Your task to perform on an android device: Open Google Chrome Image 0: 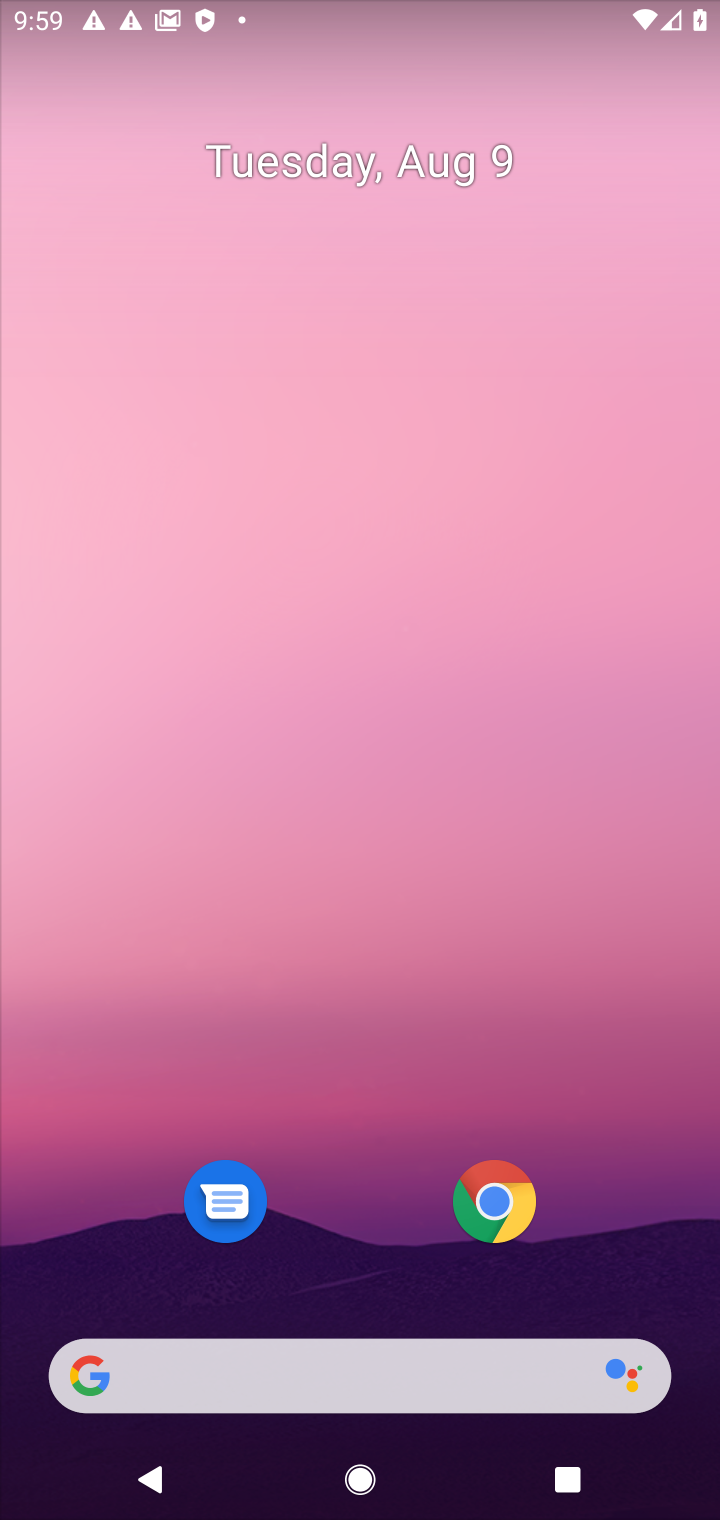
Step 0: click (508, 1219)
Your task to perform on an android device: Open Google Chrome Image 1: 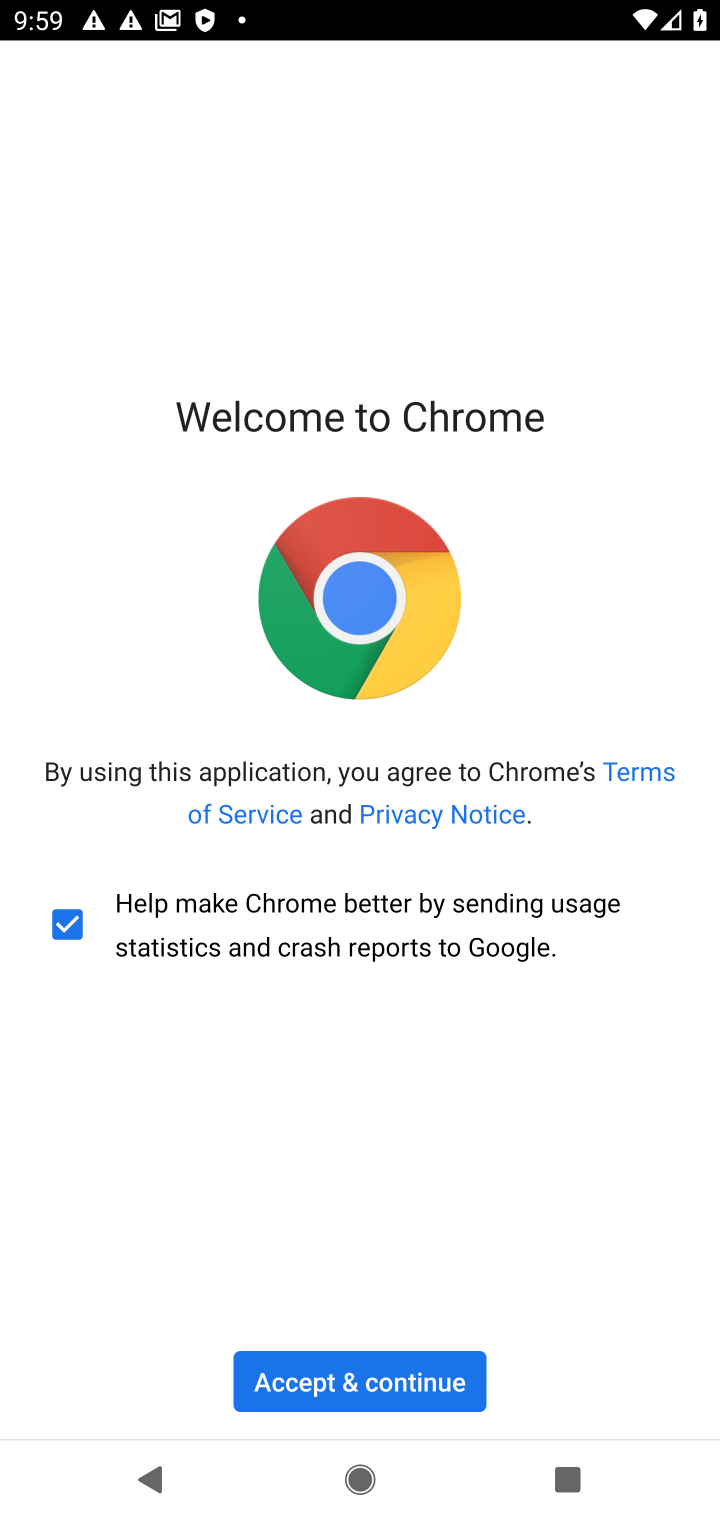
Step 1: click (385, 1381)
Your task to perform on an android device: Open Google Chrome Image 2: 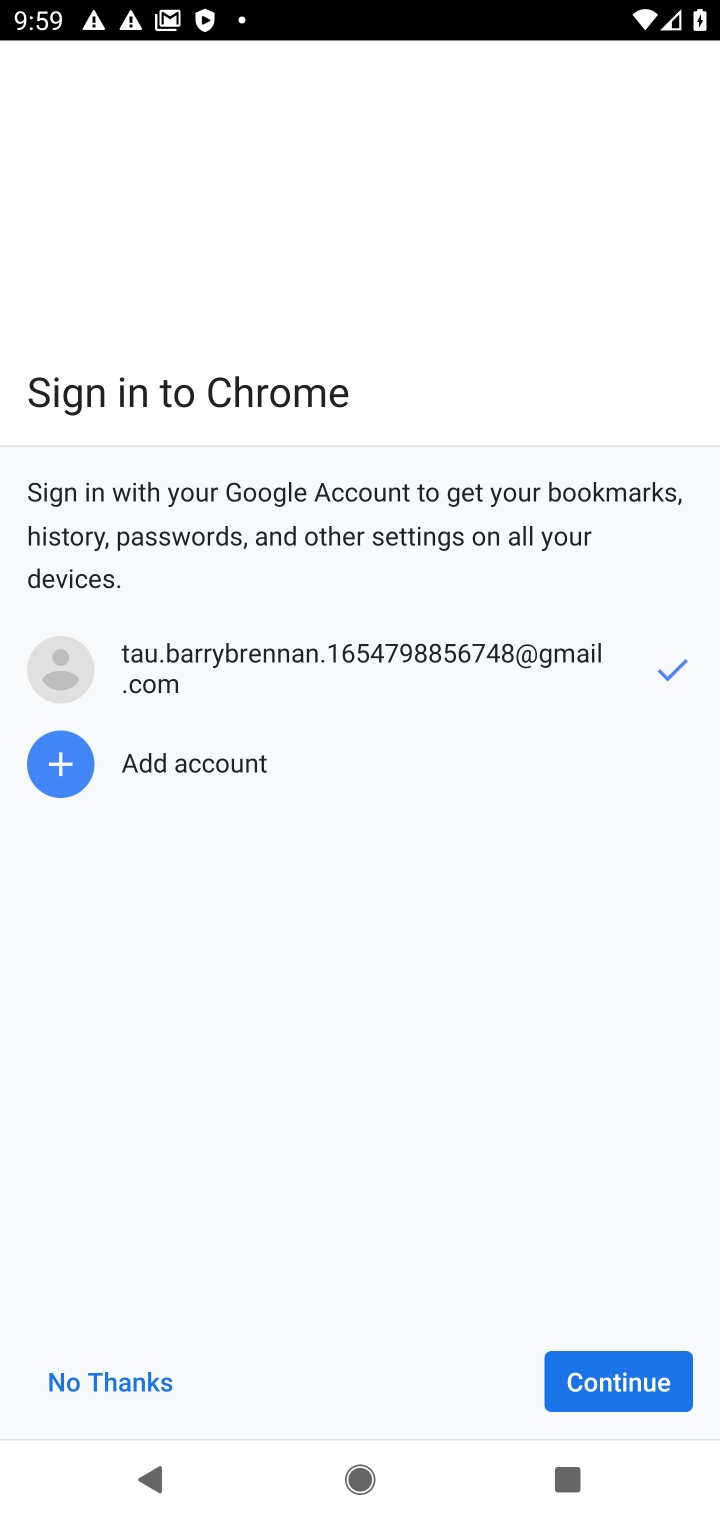
Step 2: click (593, 1372)
Your task to perform on an android device: Open Google Chrome Image 3: 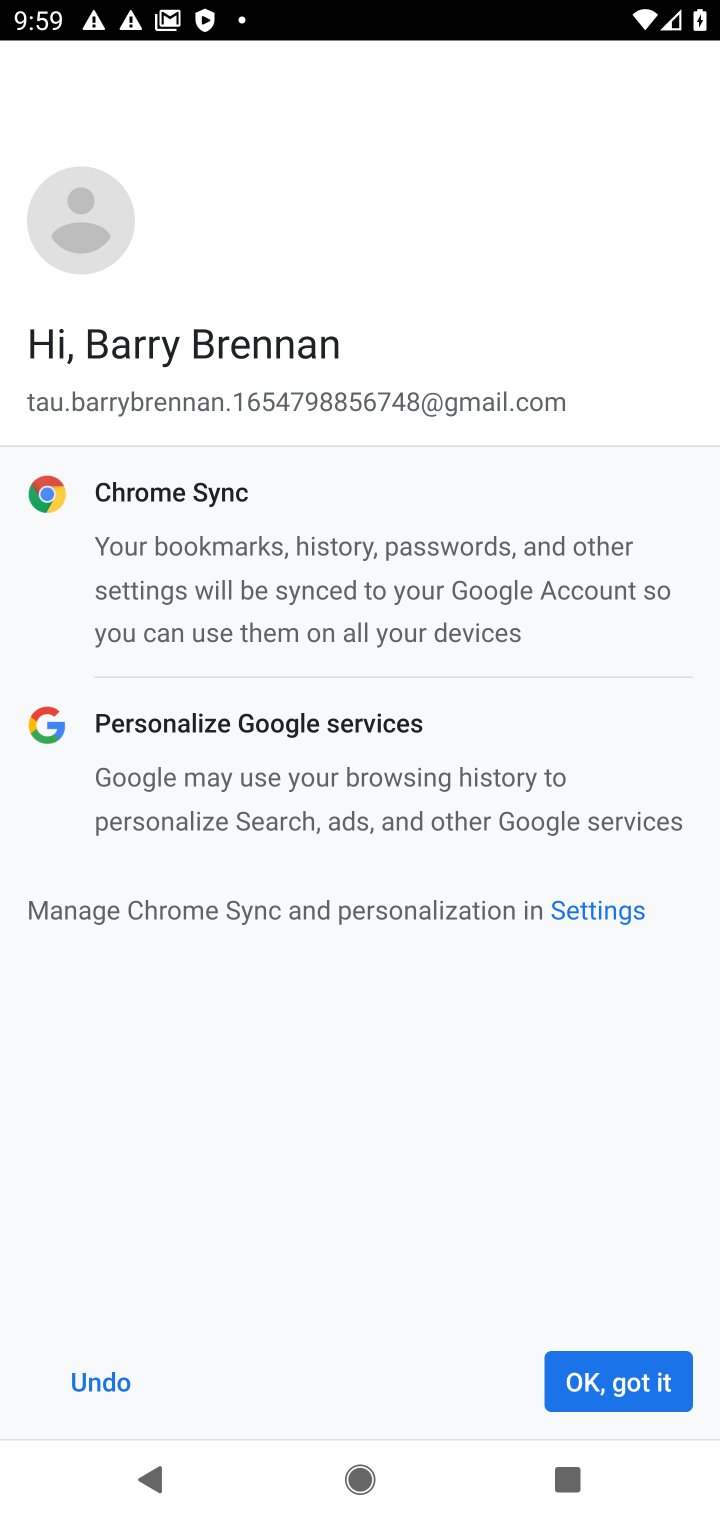
Step 3: click (593, 1372)
Your task to perform on an android device: Open Google Chrome Image 4: 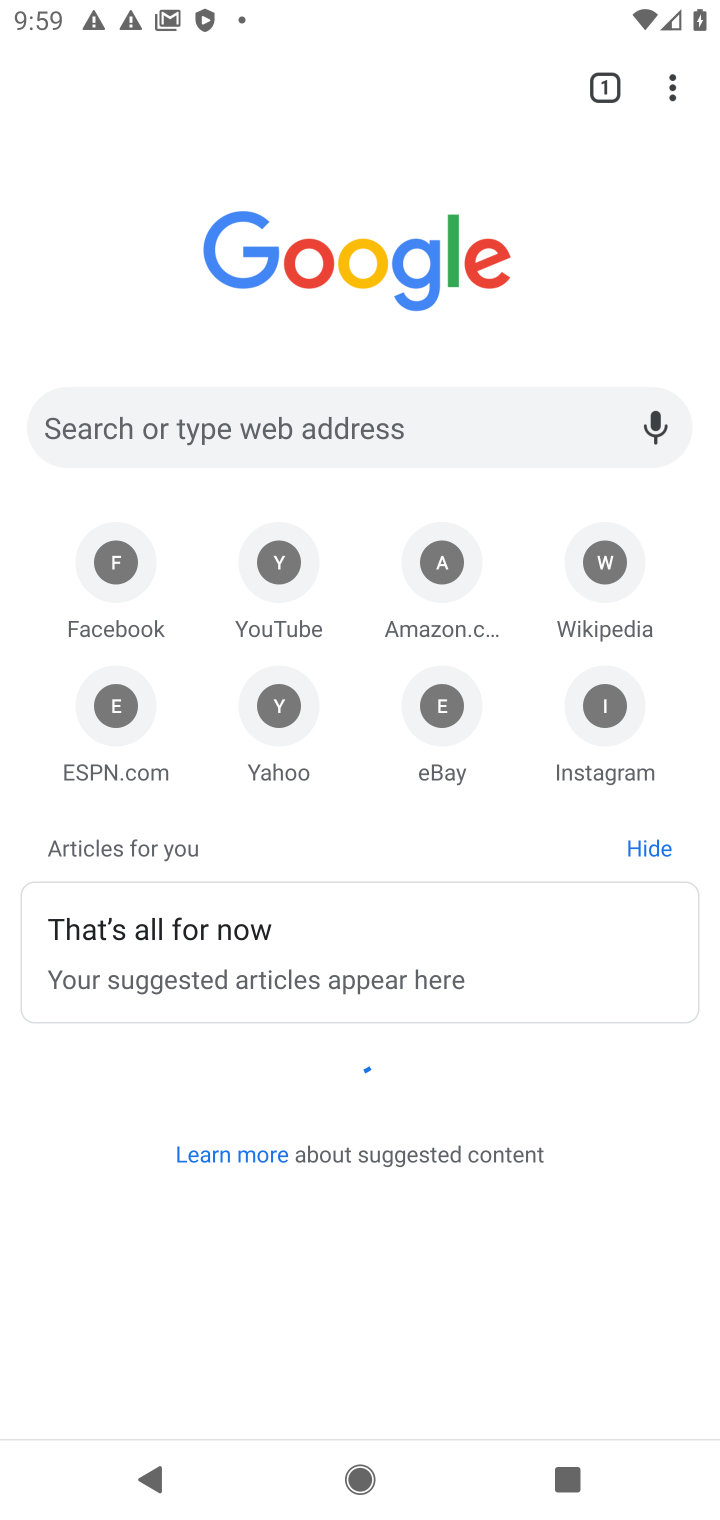
Step 4: task complete